Your task to perform on an android device: set the timer Image 0: 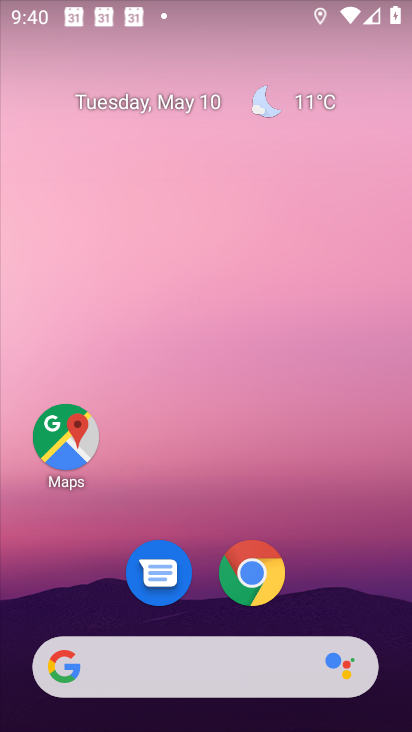
Step 0: drag from (336, 602) to (330, 228)
Your task to perform on an android device: set the timer Image 1: 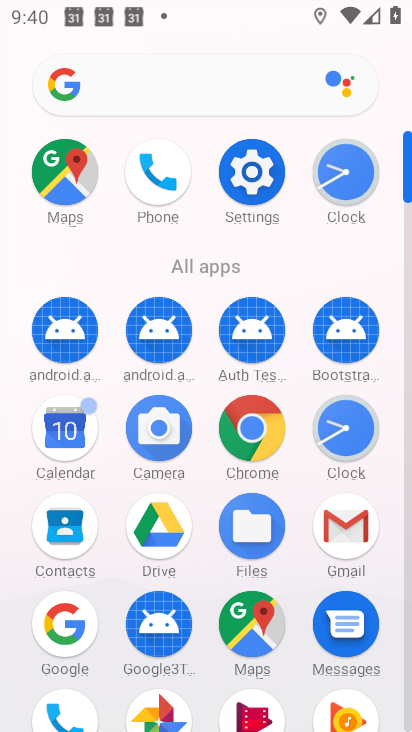
Step 1: click (352, 447)
Your task to perform on an android device: set the timer Image 2: 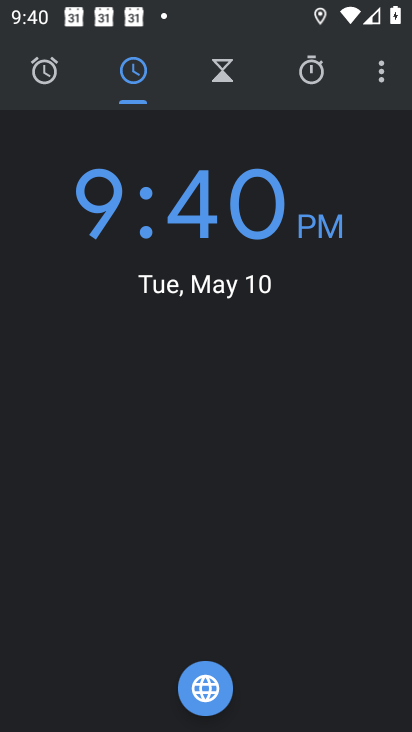
Step 2: click (213, 77)
Your task to perform on an android device: set the timer Image 3: 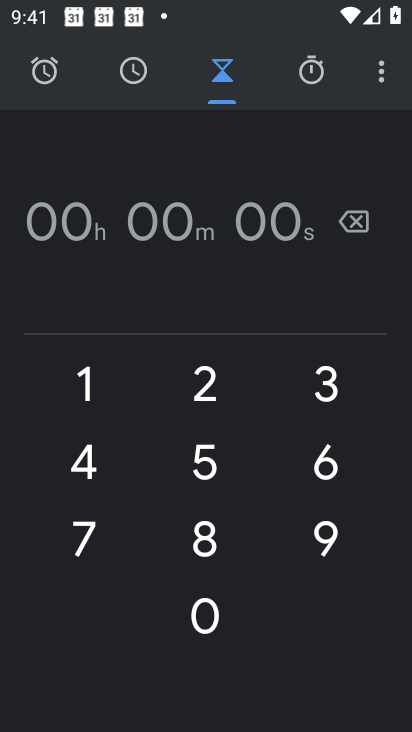
Step 3: click (339, 378)
Your task to perform on an android device: set the timer Image 4: 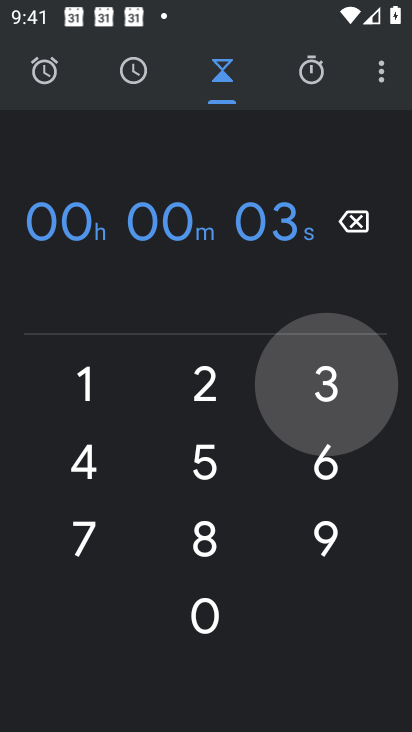
Step 4: click (205, 453)
Your task to perform on an android device: set the timer Image 5: 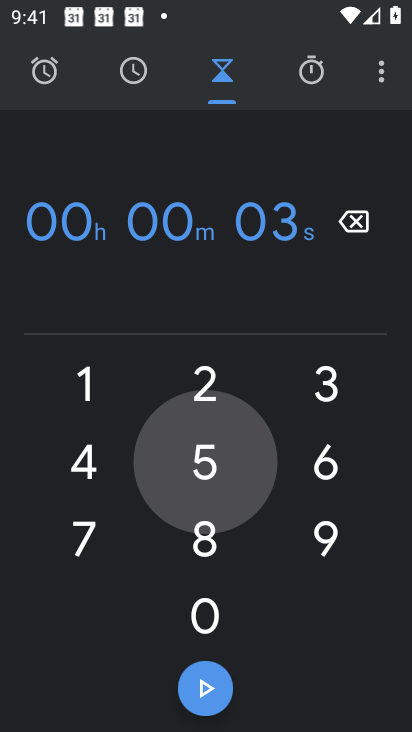
Step 5: click (195, 394)
Your task to perform on an android device: set the timer Image 6: 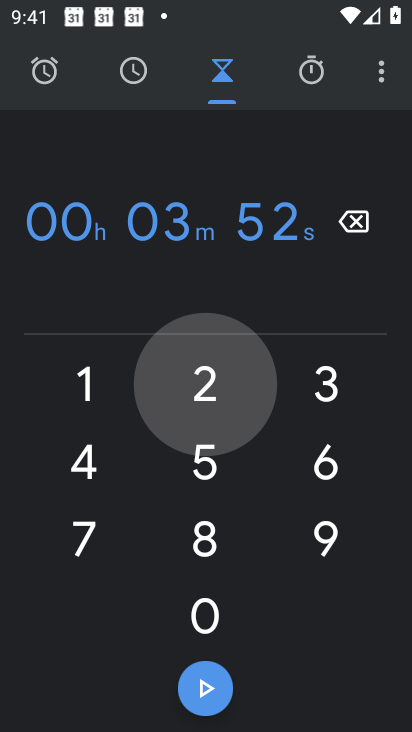
Step 6: click (337, 489)
Your task to perform on an android device: set the timer Image 7: 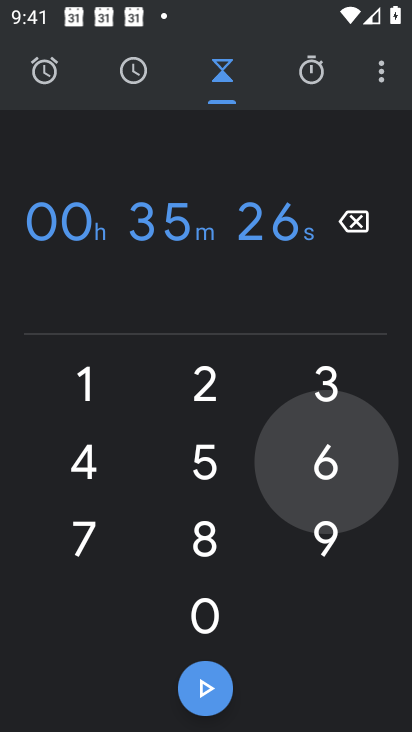
Step 7: click (216, 547)
Your task to perform on an android device: set the timer Image 8: 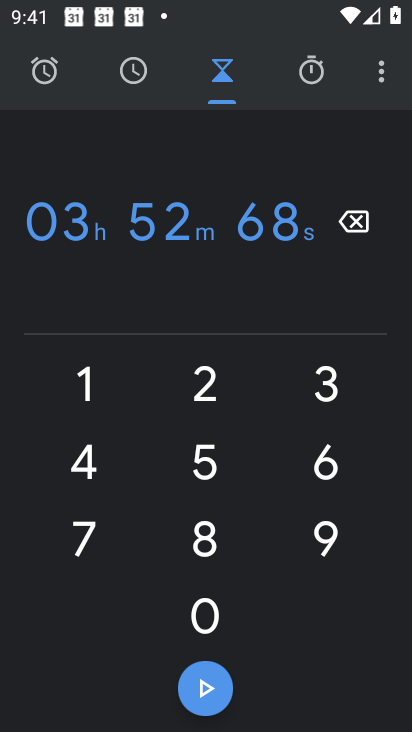
Step 8: click (221, 689)
Your task to perform on an android device: set the timer Image 9: 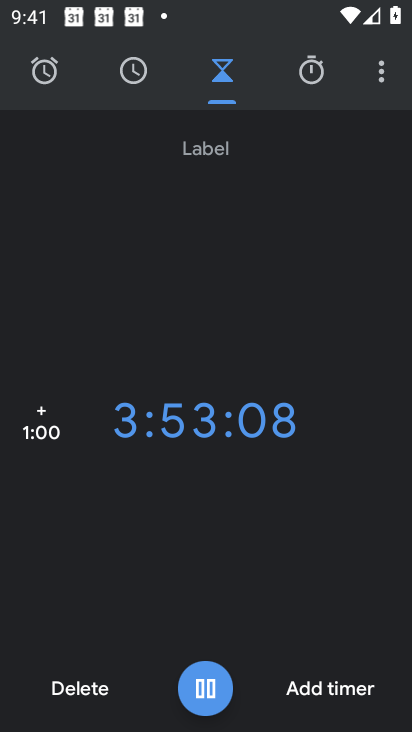
Step 9: task complete